Your task to perform on an android device: Do I have any events this weekend? Image 0: 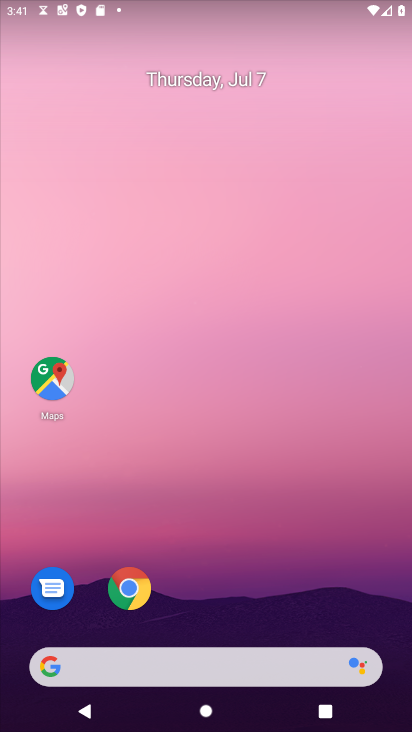
Step 0: drag from (252, 622) to (239, 77)
Your task to perform on an android device: Do I have any events this weekend? Image 1: 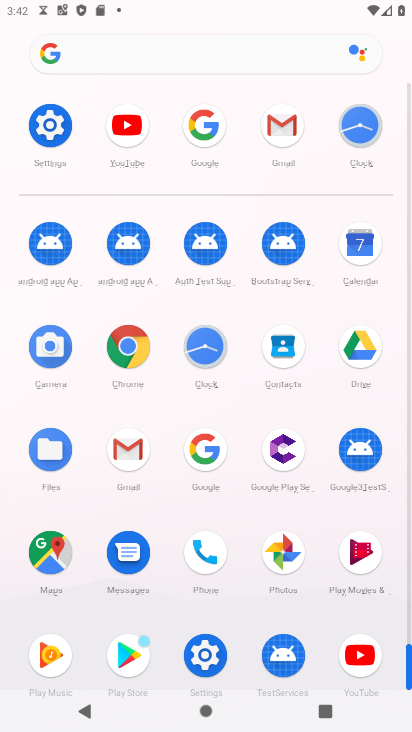
Step 1: click (360, 245)
Your task to perform on an android device: Do I have any events this weekend? Image 2: 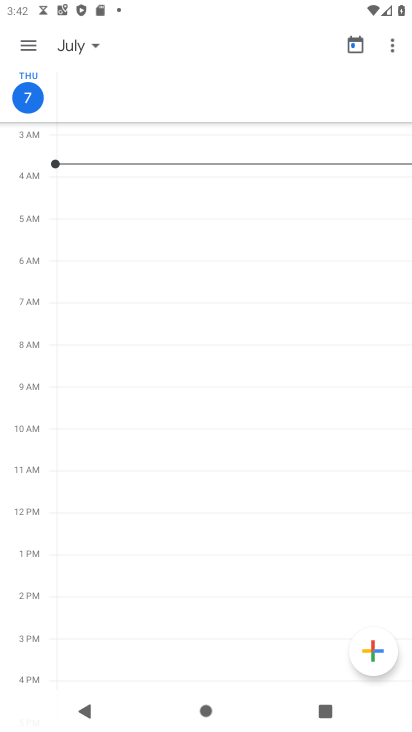
Step 2: click (352, 45)
Your task to perform on an android device: Do I have any events this weekend? Image 3: 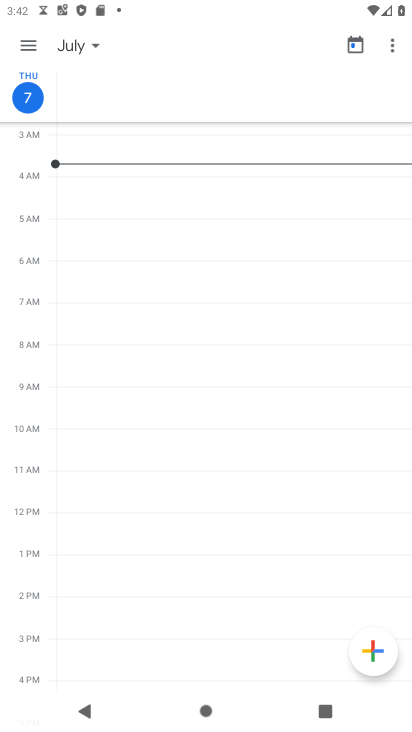
Step 3: click (89, 44)
Your task to perform on an android device: Do I have any events this weekend? Image 4: 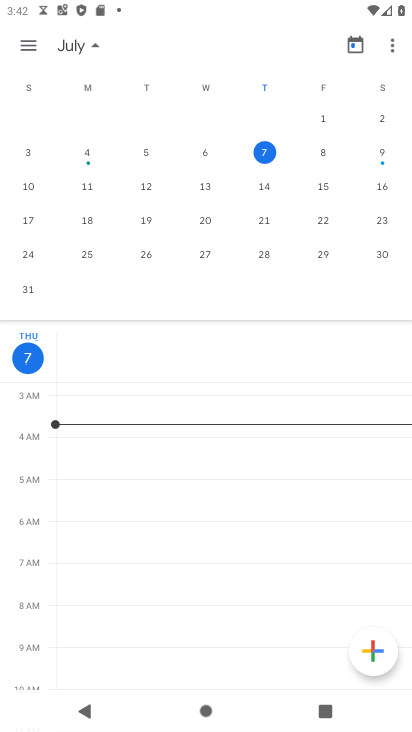
Step 4: click (381, 154)
Your task to perform on an android device: Do I have any events this weekend? Image 5: 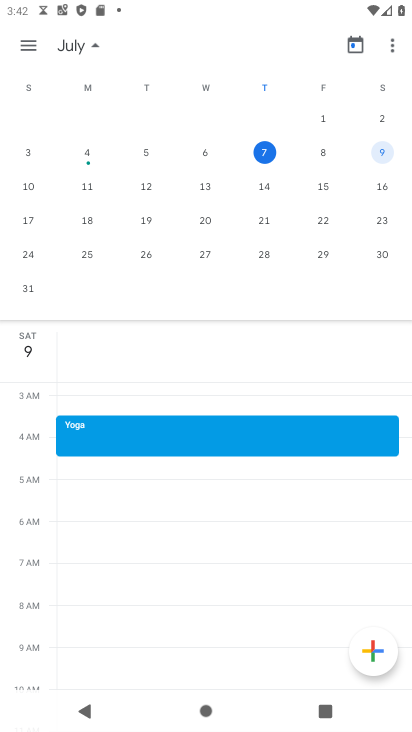
Step 5: click (35, 45)
Your task to perform on an android device: Do I have any events this weekend? Image 6: 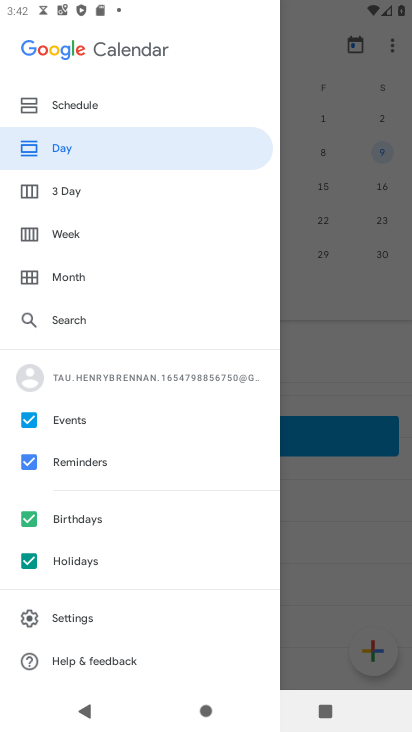
Step 6: click (82, 231)
Your task to perform on an android device: Do I have any events this weekend? Image 7: 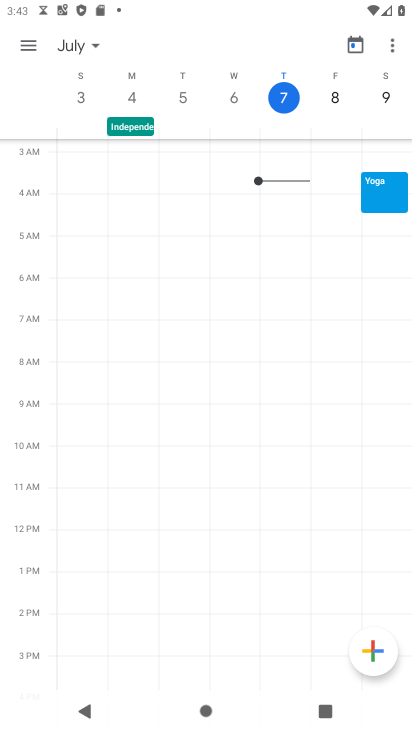
Step 7: task complete